Your task to perform on an android device: Search for seafood restaurants on Google Maps Image 0: 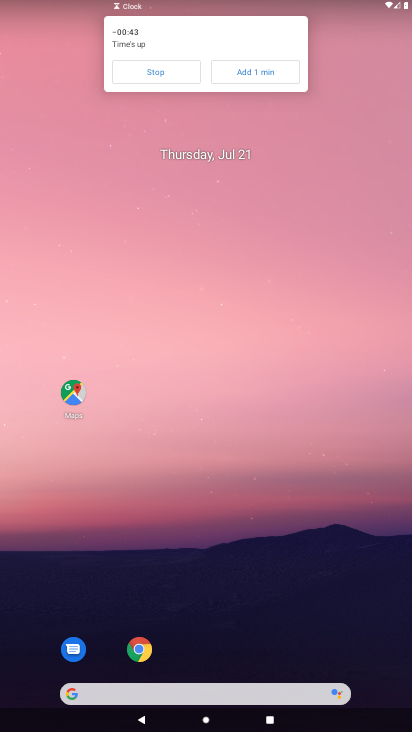
Step 0: drag from (230, 717) to (230, 154)
Your task to perform on an android device: Search for seafood restaurants on Google Maps Image 1: 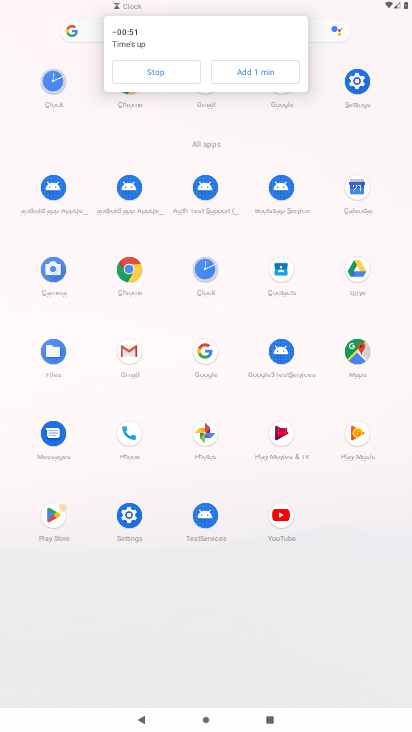
Step 1: click (359, 354)
Your task to perform on an android device: Search for seafood restaurants on Google Maps Image 2: 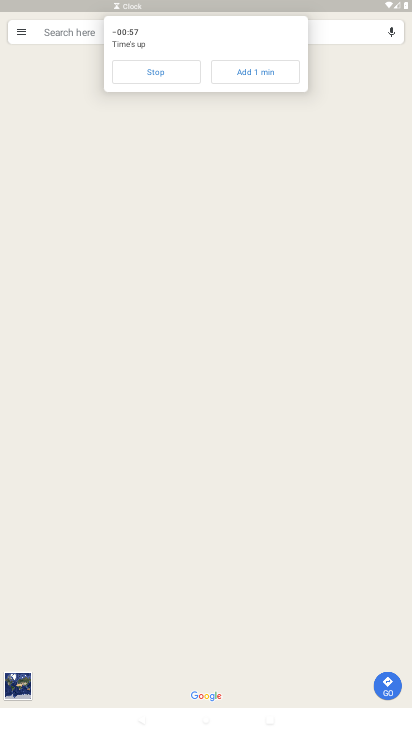
Step 2: click (168, 71)
Your task to perform on an android device: Search for seafood restaurants on Google Maps Image 3: 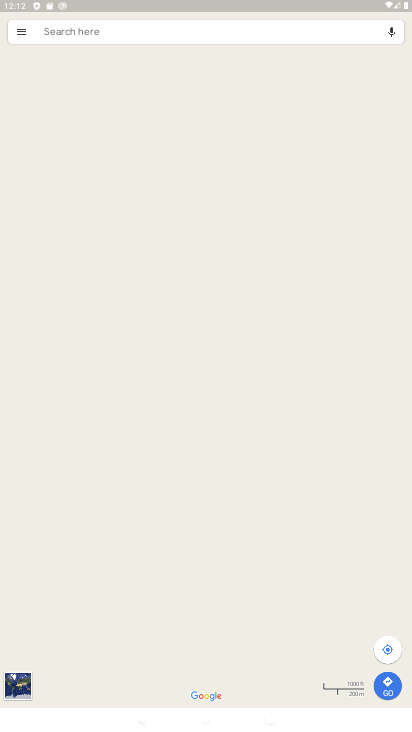
Step 3: click (151, 35)
Your task to perform on an android device: Search for seafood restaurants on Google Maps Image 4: 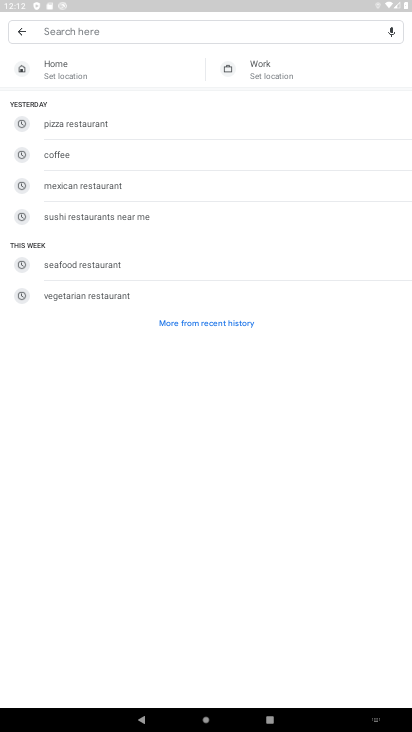
Step 4: type "seafood restaurants"
Your task to perform on an android device: Search for seafood restaurants on Google Maps Image 5: 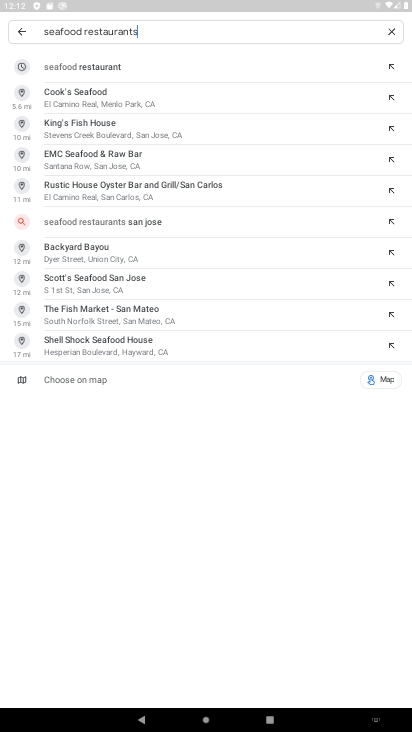
Step 5: click (70, 68)
Your task to perform on an android device: Search for seafood restaurants on Google Maps Image 6: 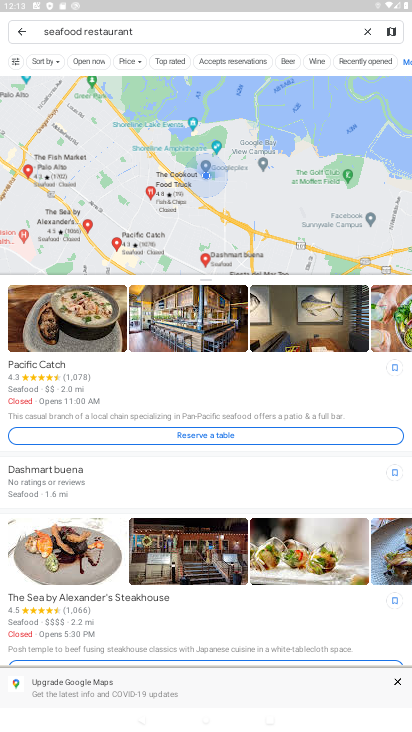
Step 6: task complete